Your task to perform on an android device: open a bookmark in the chrome app Image 0: 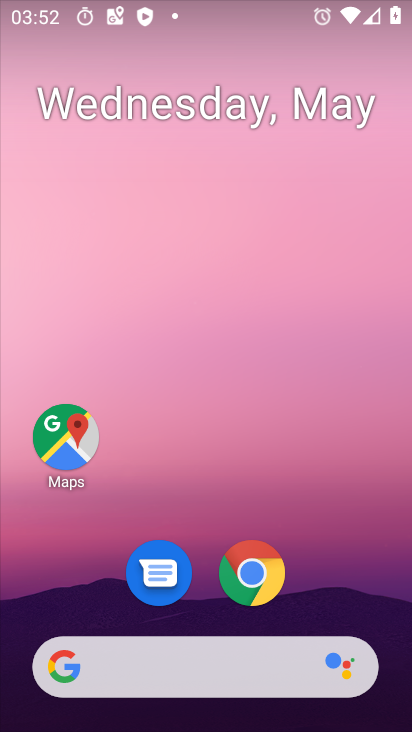
Step 0: click (249, 573)
Your task to perform on an android device: open a bookmark in the chrome app Image 1: 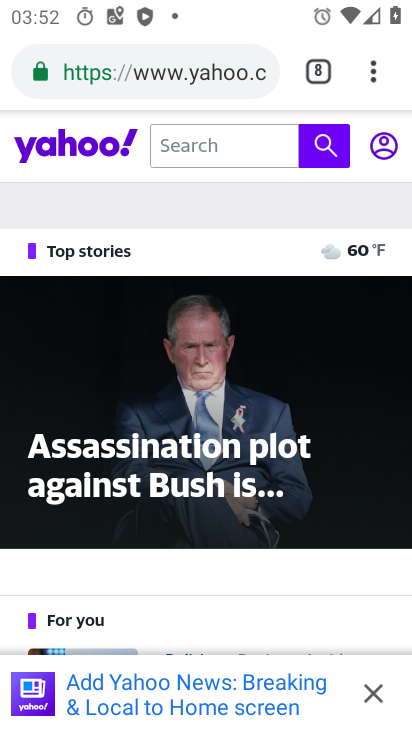
Step 1: click (371, 77)
Your task to perform on an android device: open a bookmark in the chrome app Image 2: 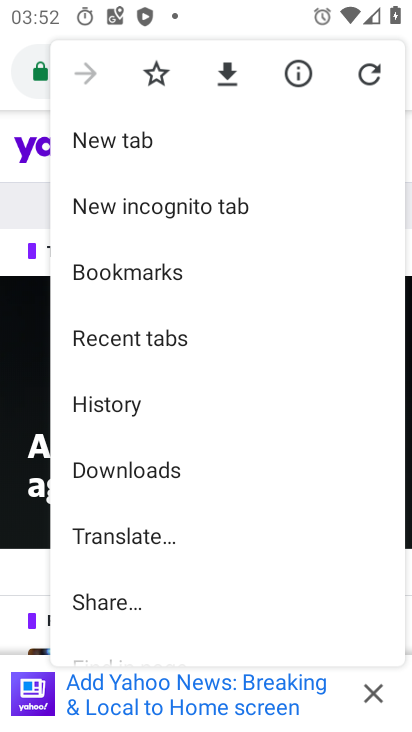
Step 2: click (133, 270)
Your task to perform on an android device: open a bookmark in the chrome app Image 3: 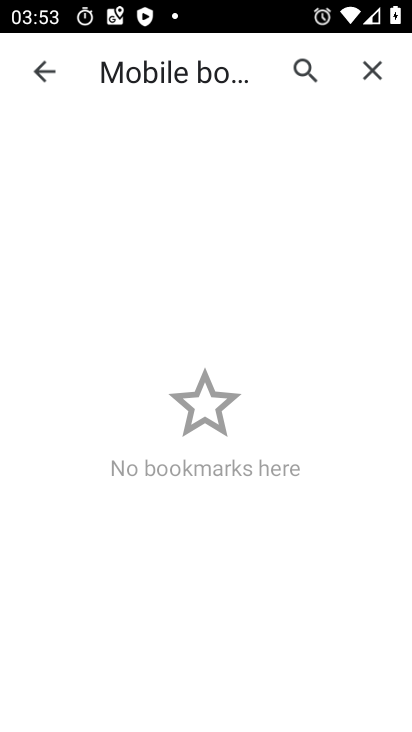
Step 3: task complete